Your task to perform on an android device: turn off sleep mode Image 0: 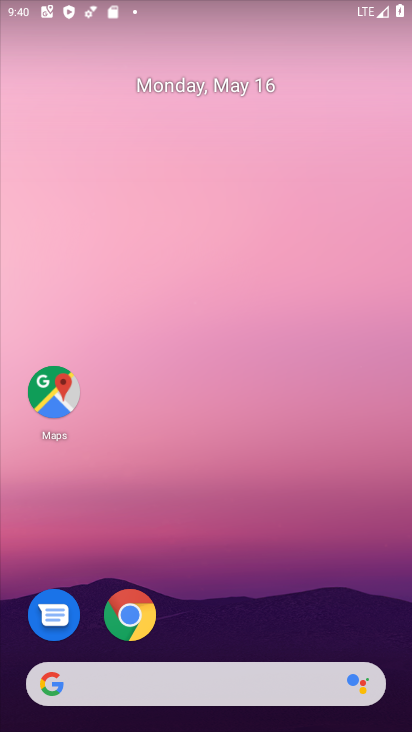
Step 0: drag from (201, 670) to (292, 286)
Your task to perform on an android device: turn off sleep mode Image 1: 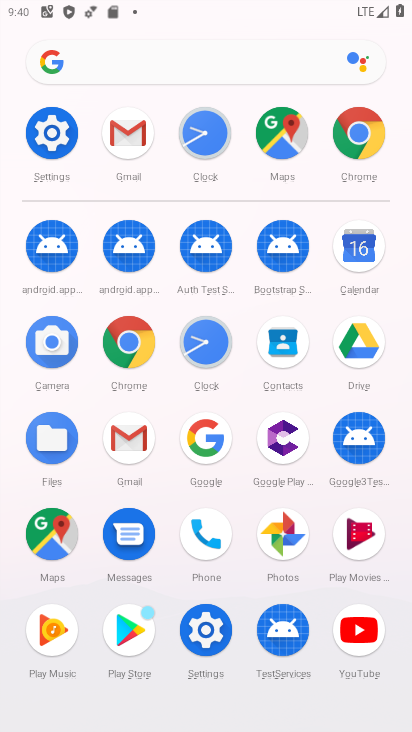
Step 1: click (69, 162)
Your task to perform on an android device: turn off sleep mode Image 2: 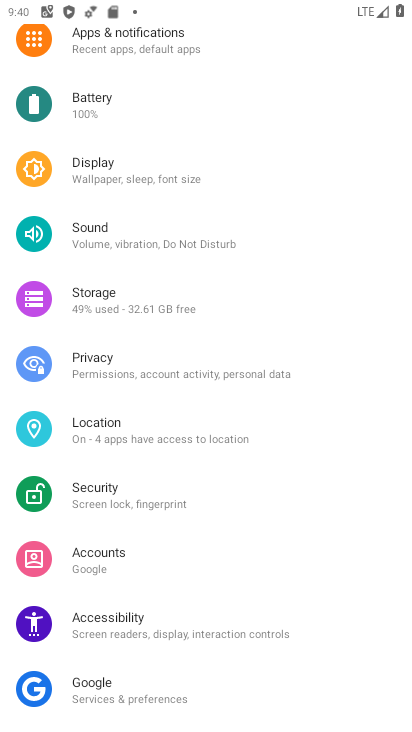
Step 2: click (179, 180)
Your task to perform on an android device: turn off sleep mode Image 3: 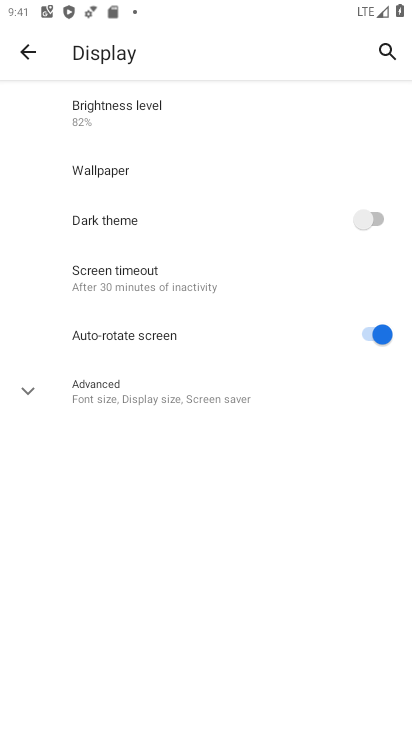
Step 3: click (151, 394)
Your task to perform on an android device: turn off sleep mode Image 4: 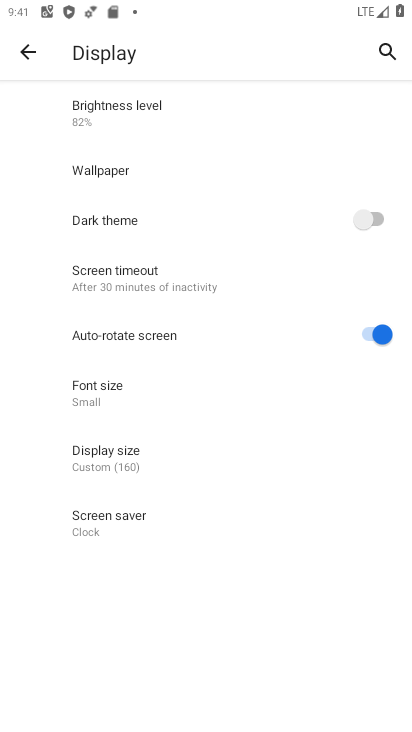
Step 4: task complete